Your task to perform on an android device: set an alarm Image 0: 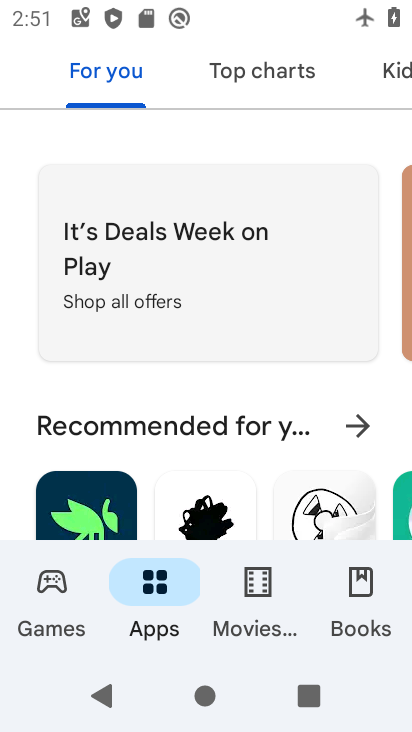
Step 0: press home button
Your task to perform on an android device: set an alarm Image 1: 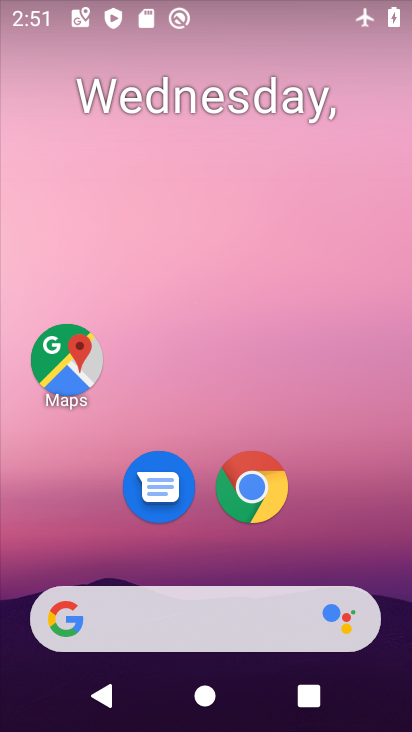
Step 1: drag from (361, 513) to (366, 155)
Your task to perform on an android device: set an alarm Image 2: 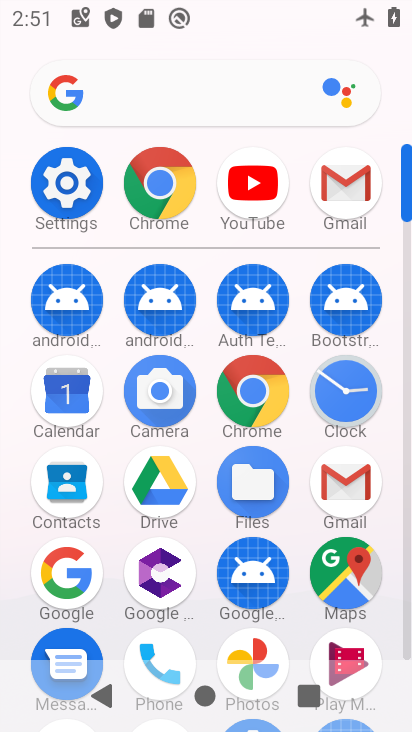
Step 2: click (329, 403)
Your task to perform on an android device: set an alarm Image 3: 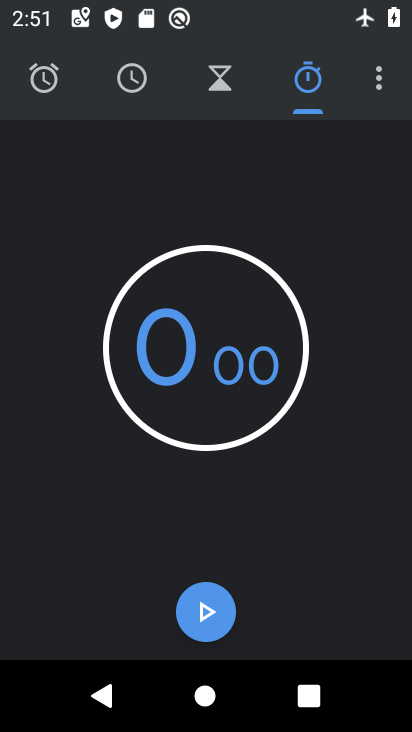
Step 3: click (40, 86)
Your task to perform on an android device: set an alarm Image 4: 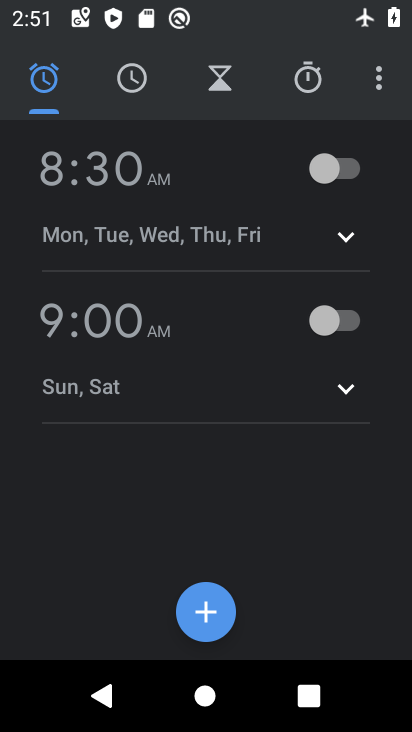
Step 4: click (206, 626)
Your task to perform on an android device: set an alarm Image 5: 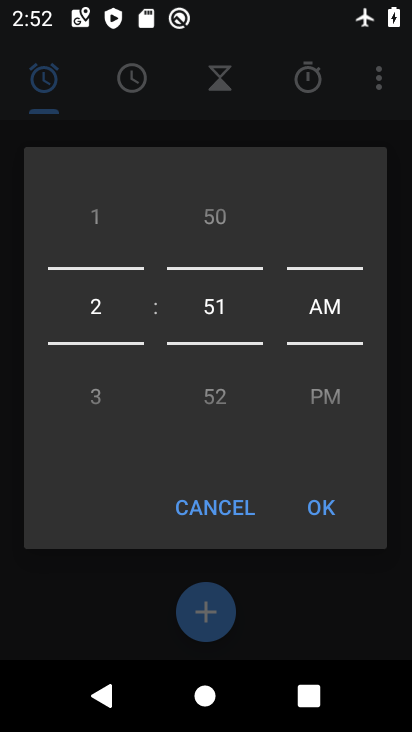
Step 5: click (312, 509)
Your task to perform on an android device: set an alarm Image 6: 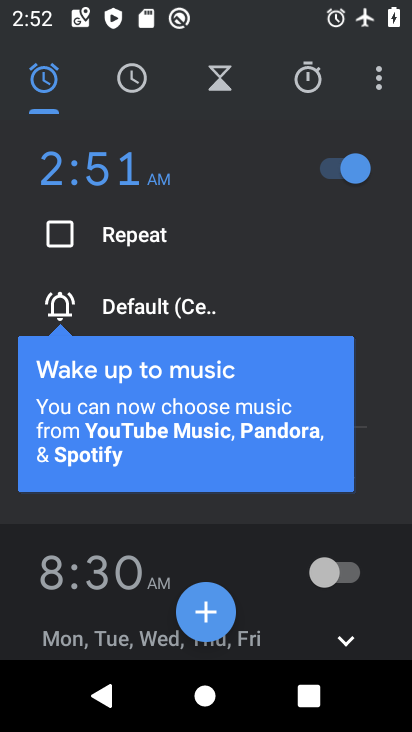
Step 6: task complete